Your task to perform on an android device: Go to calendar. Show me events next week Image 0: 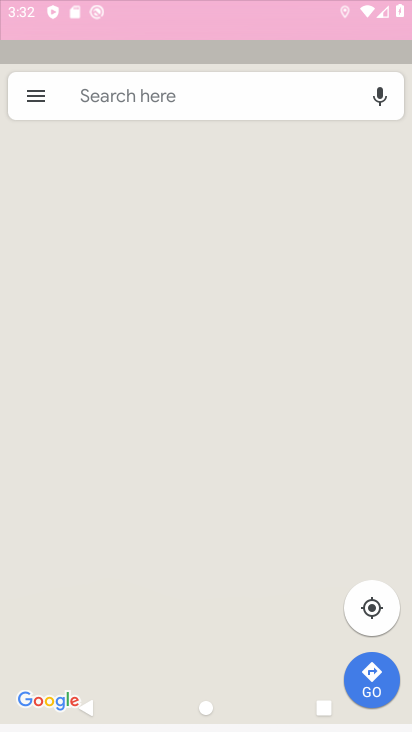
Step 0: drag from (379, 123) to (136, 579)
Your task to perform on an android device: Go to calendar. Show me events next week Image 1: 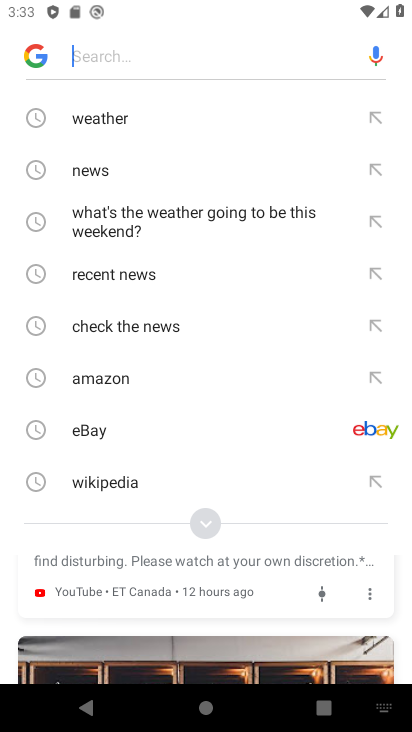
Step 1: press home button
Your task to perform on an android device: Go to calendar. Show me events next week Image 2: 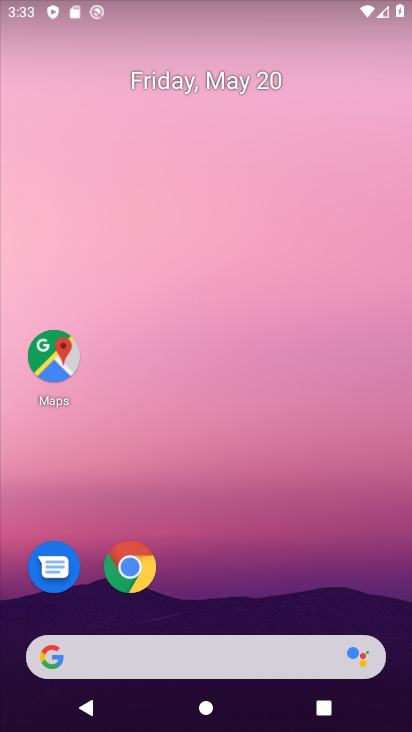
Step 2: click (176, 79)
Your task to perform on an android device: Go to calendar. Show me events next week Image 3: 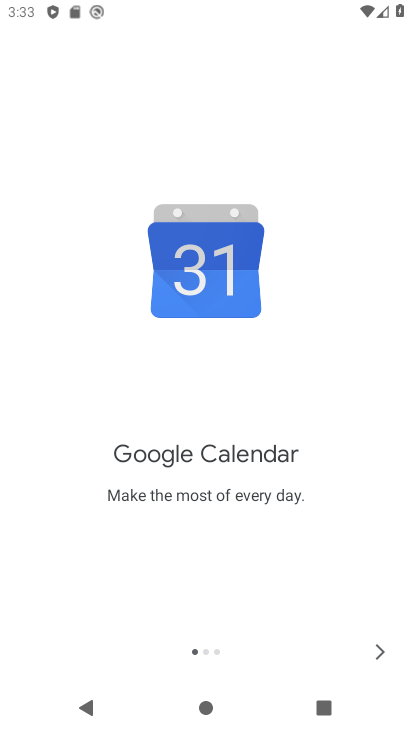
Step 3: click (379, 653)
Your task to perform on an android device: Go to calendar. Show me events next week Image 4: 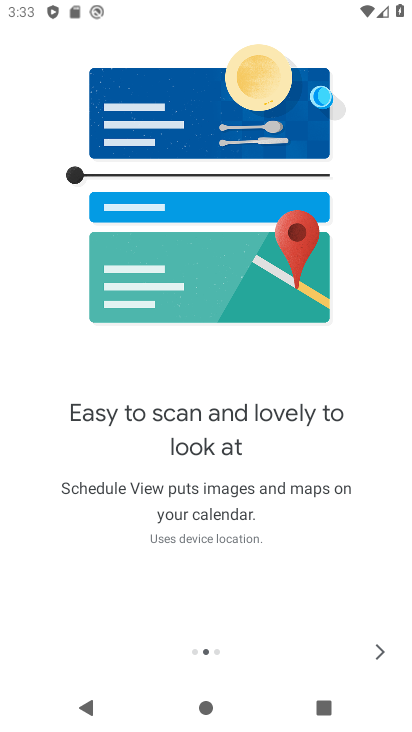
Step 4: click (379, 650)
Your task to perform on an android device: Go to calendar. Show me events next week Image 5: 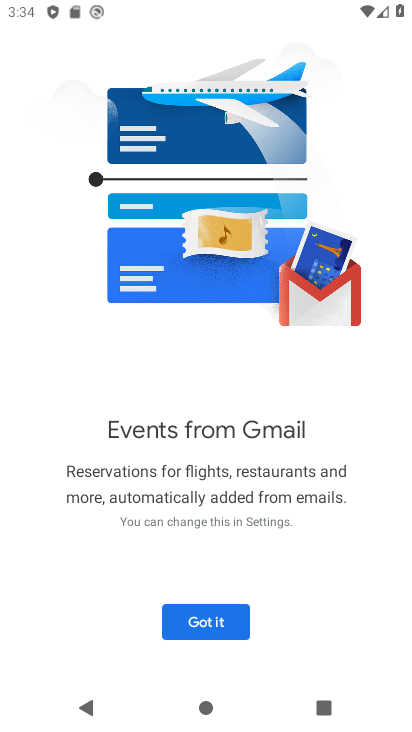
Step 5: click (223, 605)
Your task to perform on an android device: Go to calendar. Show me events next week Image 6: 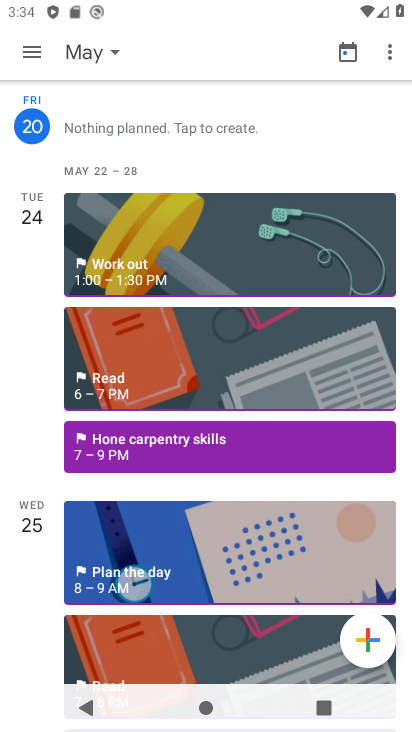
Step 6: click (95, 42)
Your task to perform on an android device: Go to calendar. Show me events next week Image 7: 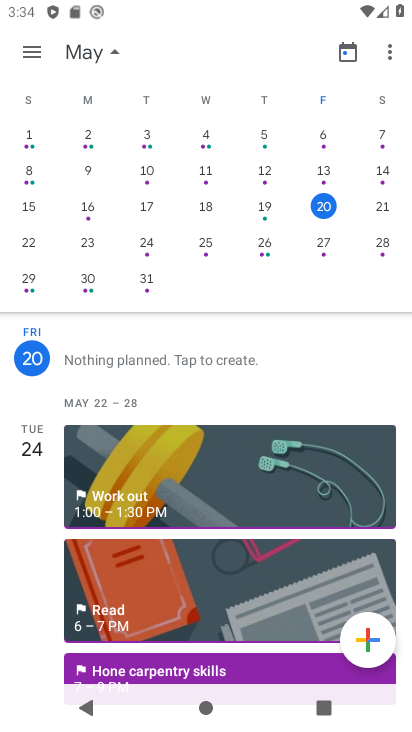
Step 7: click (103, 60)
Your task to perform on an android device: Go to calendar. Show me events next week Image 8: 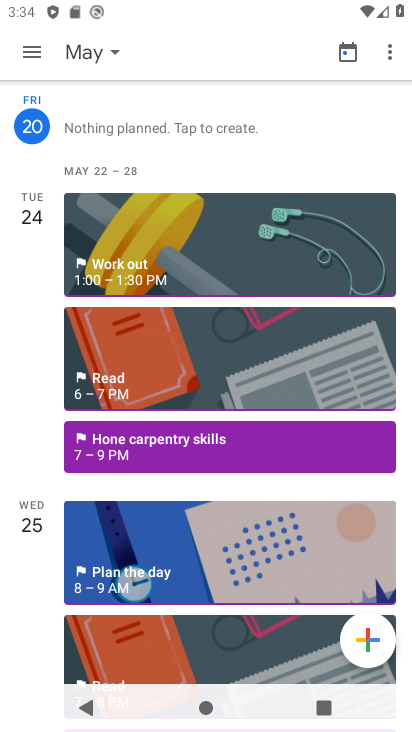
Step 8: click (103, 60)
Your task to perform on an android device: Go to calendar. Show me events next week Image 9: 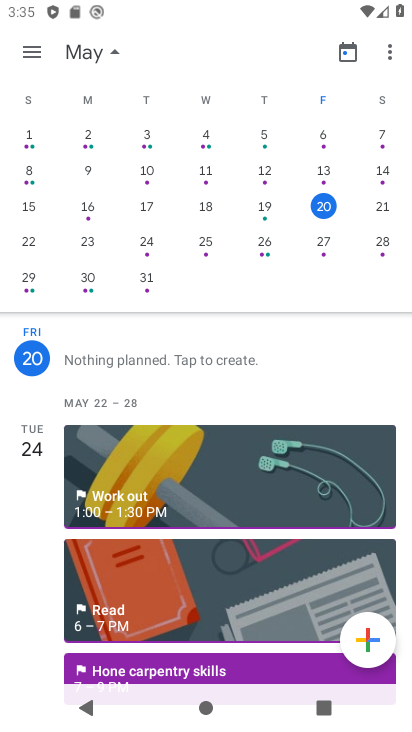
Step 9: drag from (373, 267) to (15, 262)
Your task to perform on an android device: Go to calendar. Show me events next week Image 10: 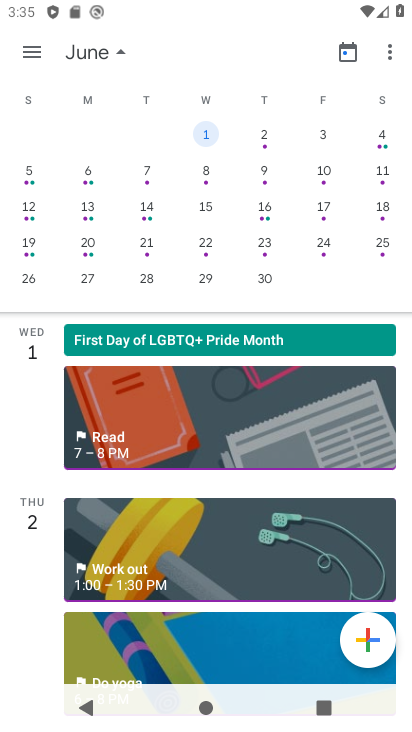
Step 10: drag from (22, 241) to (397, 316)
Your task to perform on an android device: Go to calendar. Show me events next week Image 11: 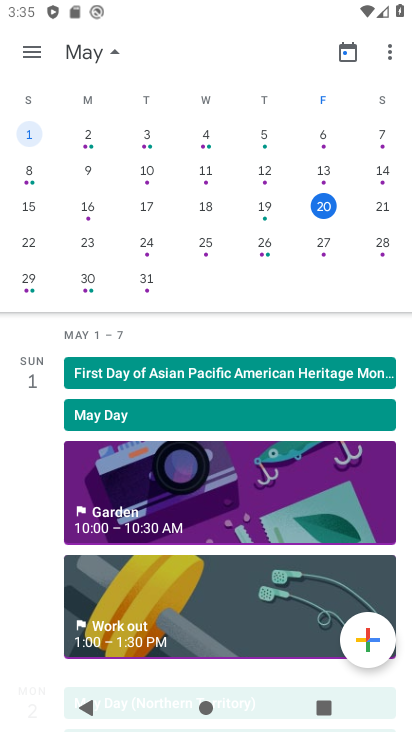
Step 11: click (205, 254)
Your task to perform on an android device: Go to calendar. Show me events next week Image 12: 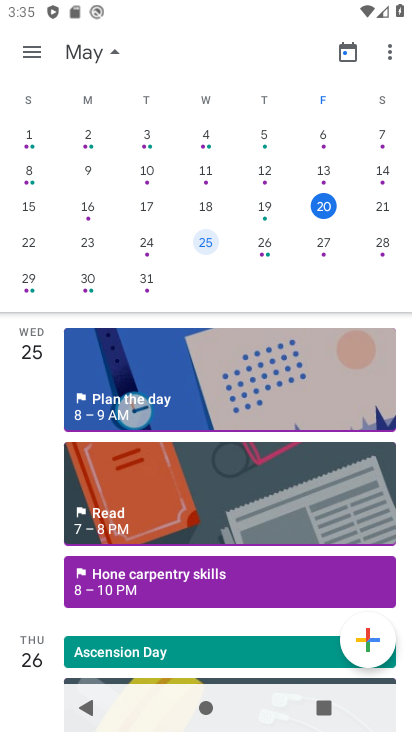
Step 12: task complete